Your task to perform on an android device: Search for the most popular books on Goodreads Image 0: 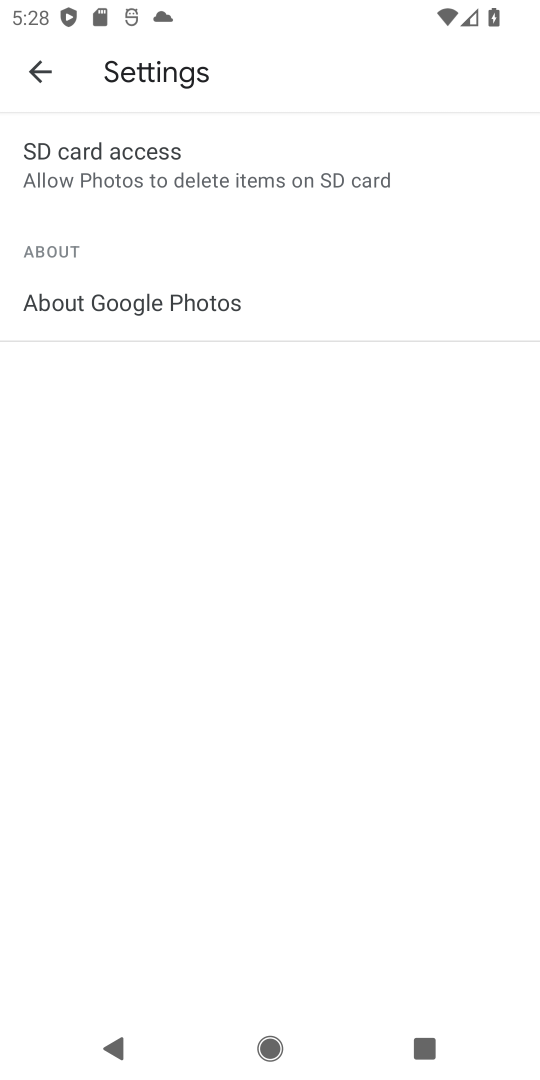
Step 0: press home button
Your task to perform on an android device: Search for the most popular books on Goodreads Image 1: 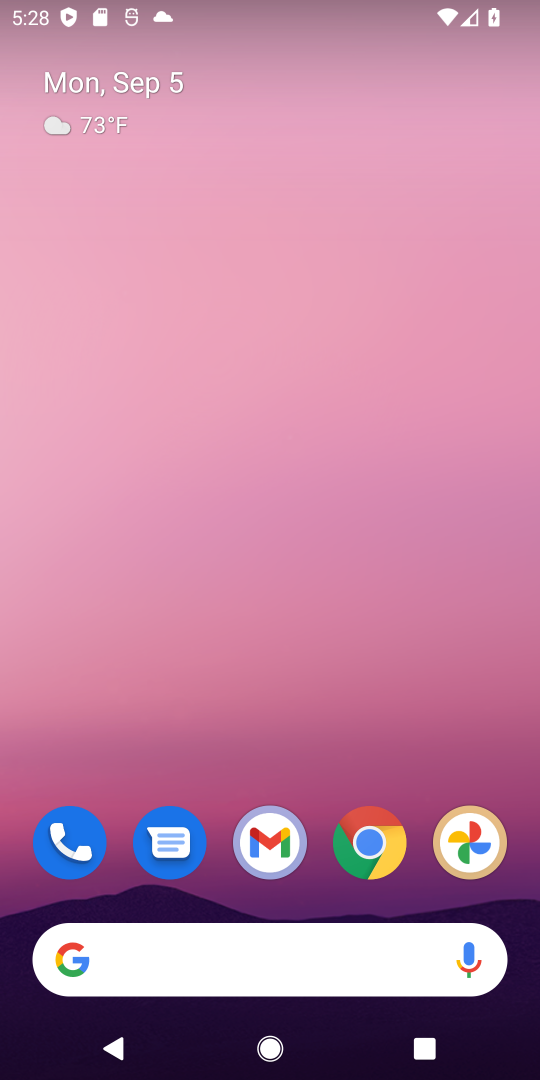
Step 1: click (373, 846)
Your task to perform on an android device: Search for the most popular books on Goodreads Image 2: 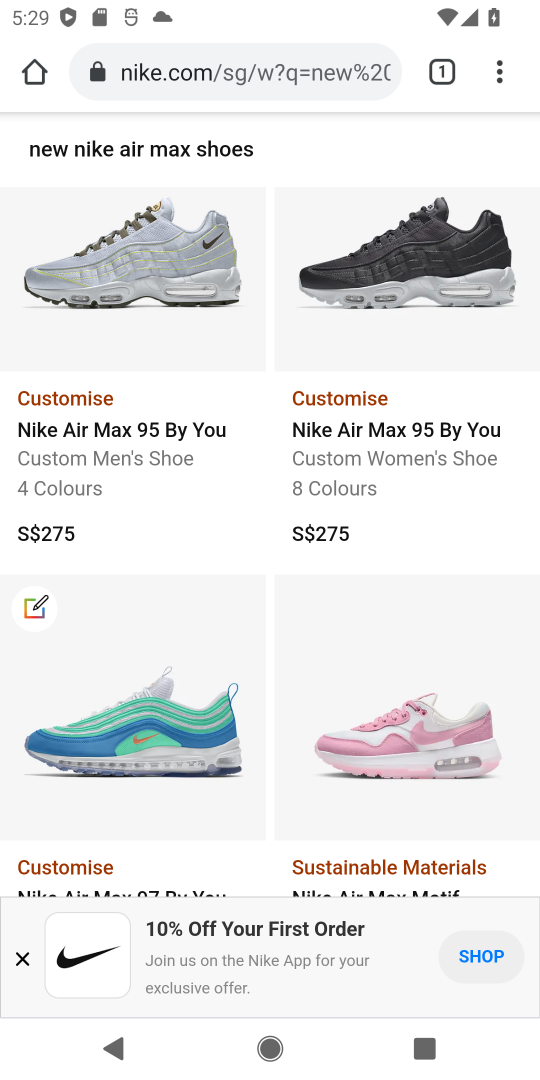
Step 2: click (296, 76)
Your task to perform on an android device: Search for the most popular books on Goodreads Image 3: 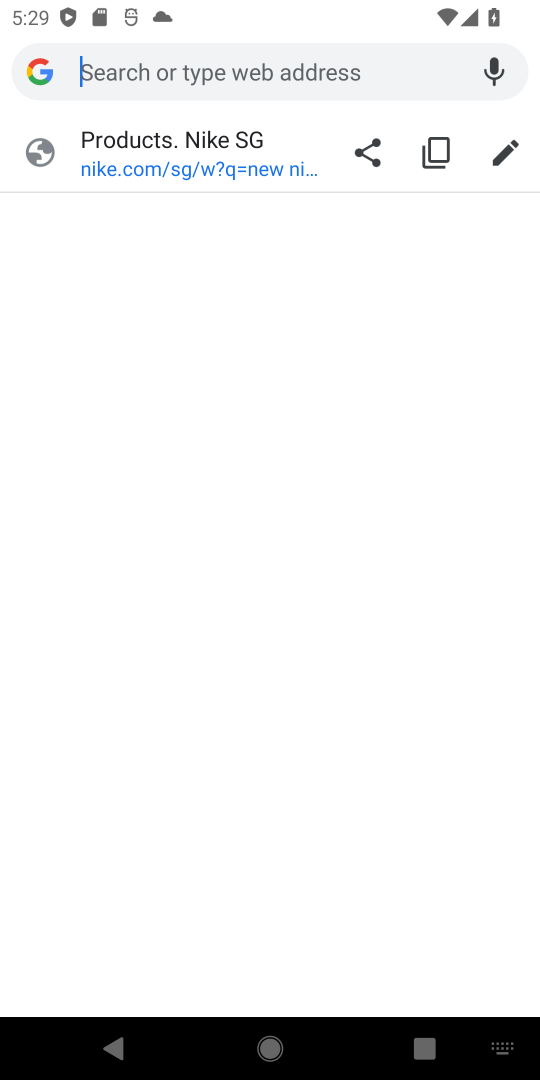
Step 3: type "Goodreads"
Your task to perform on an android device: Search for the most popular books on Goodreads Image 4: 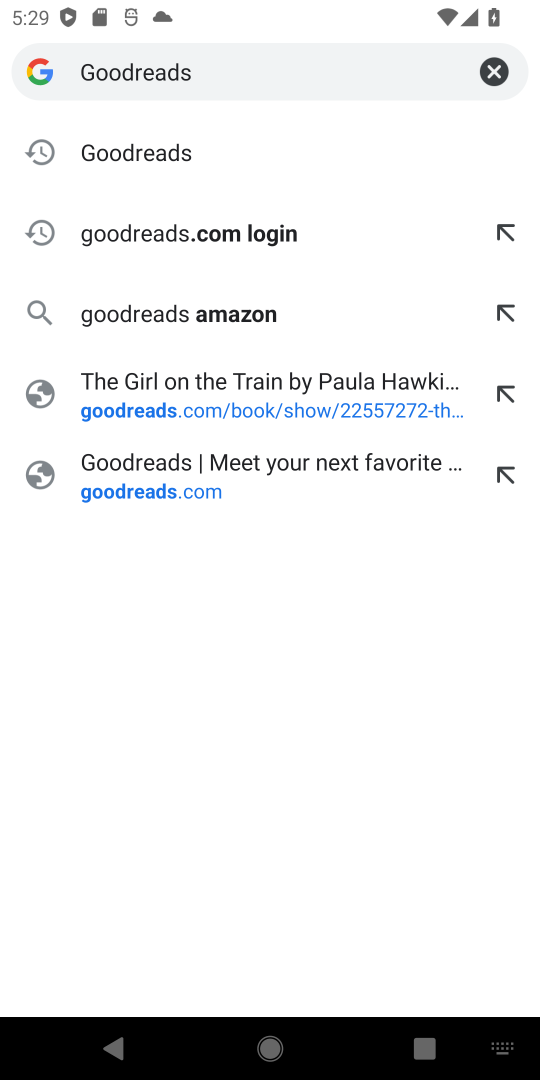
Step 4: click (120, 155)
Your task to perform on an android device: Search for the most popular books on Goodreads Image 5: 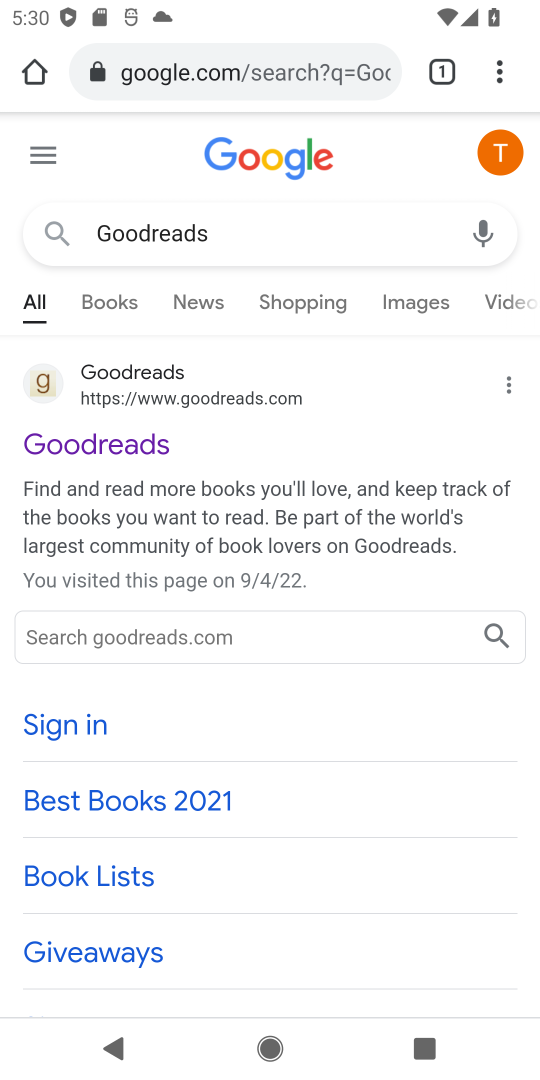
Step 5: click (205, 458)
Your task to perform on an android device: Search for the most popular books on Goodreads Image 6: 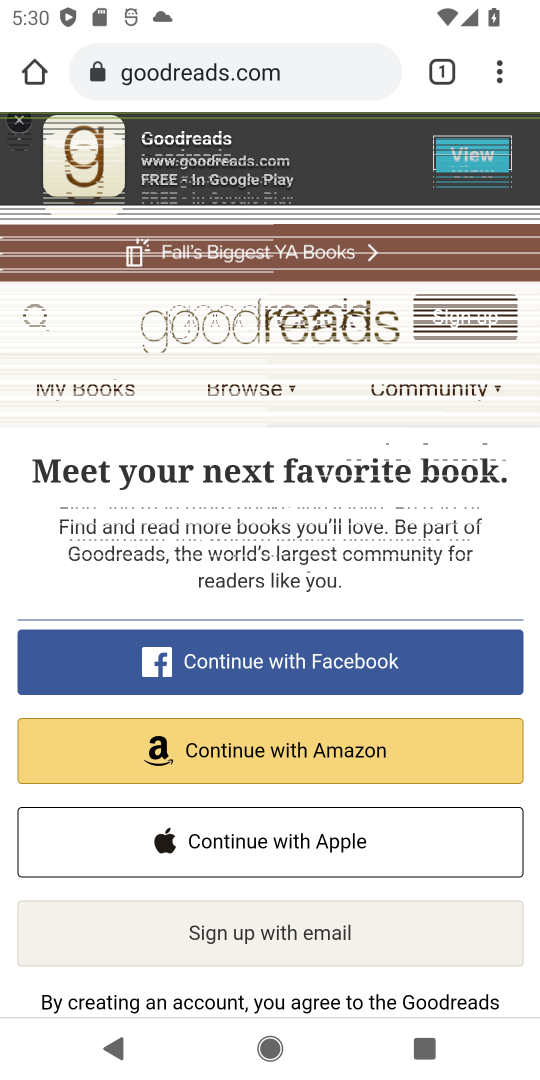
Step 6: click (45, 314)
Your task to perform on an android device: Search for the most popular books on Goodreads Image 7: 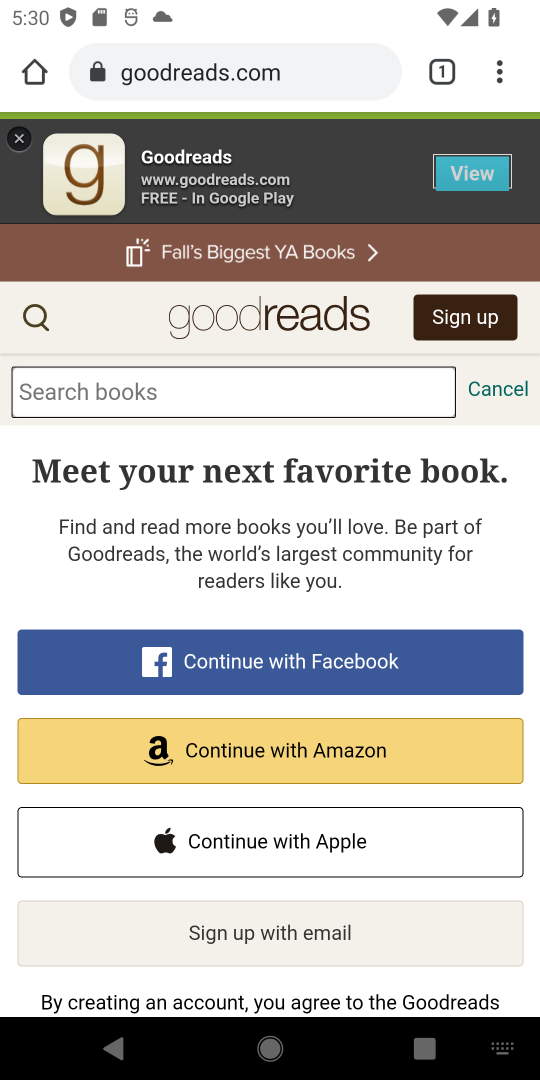
Step 7: type "most popular books"
Your task to perform on an android device: Search for the most popular books on Goodreads Image 8: 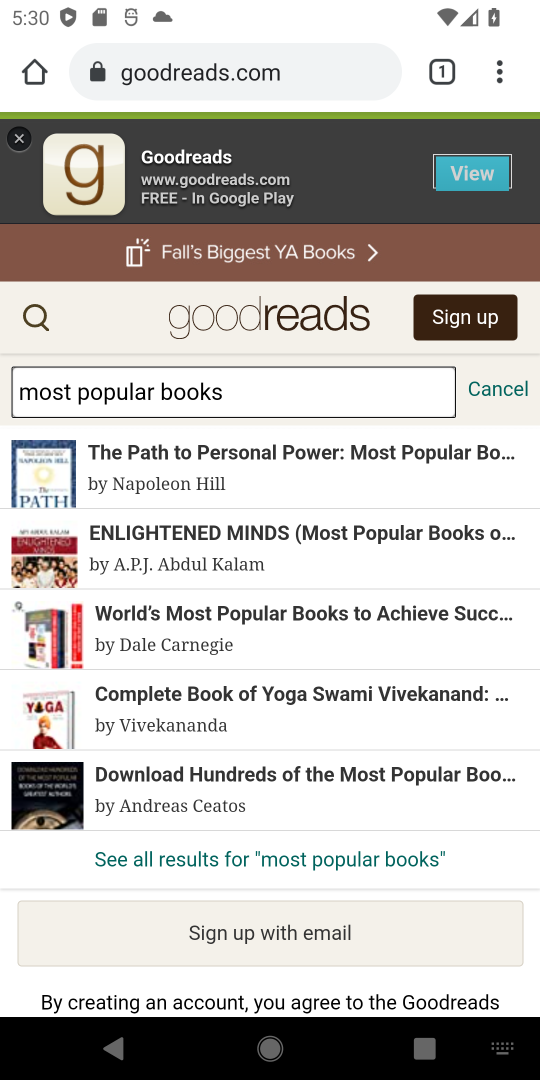
Step 8: click (280, 860)
Your task to perform on an android device: Search for the most popular books on Goodreads Image 9: 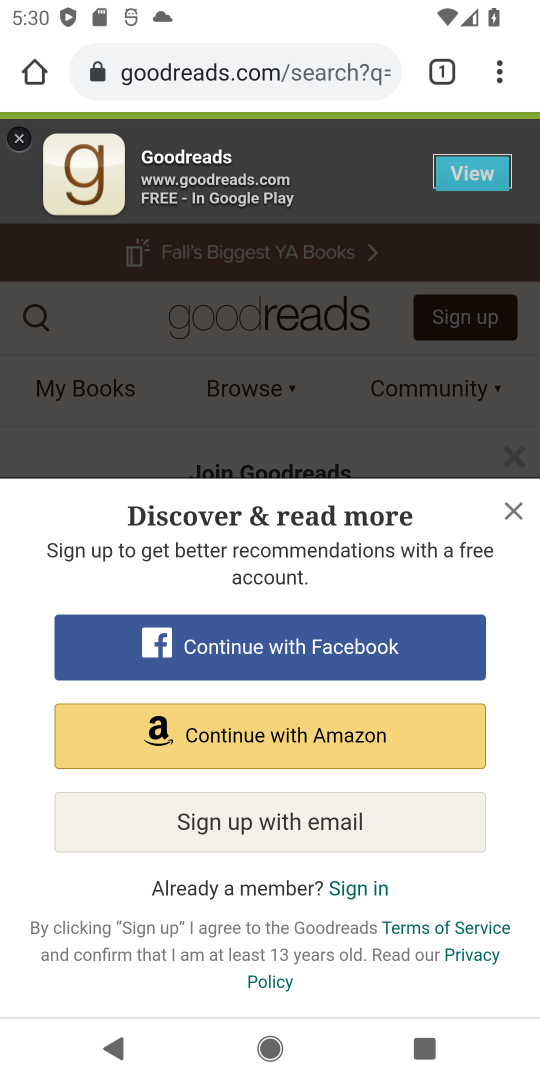
Step 9: click (497, 510)
Your task to perform on an android device: Search for the most popular books on Goodreads Image 10: 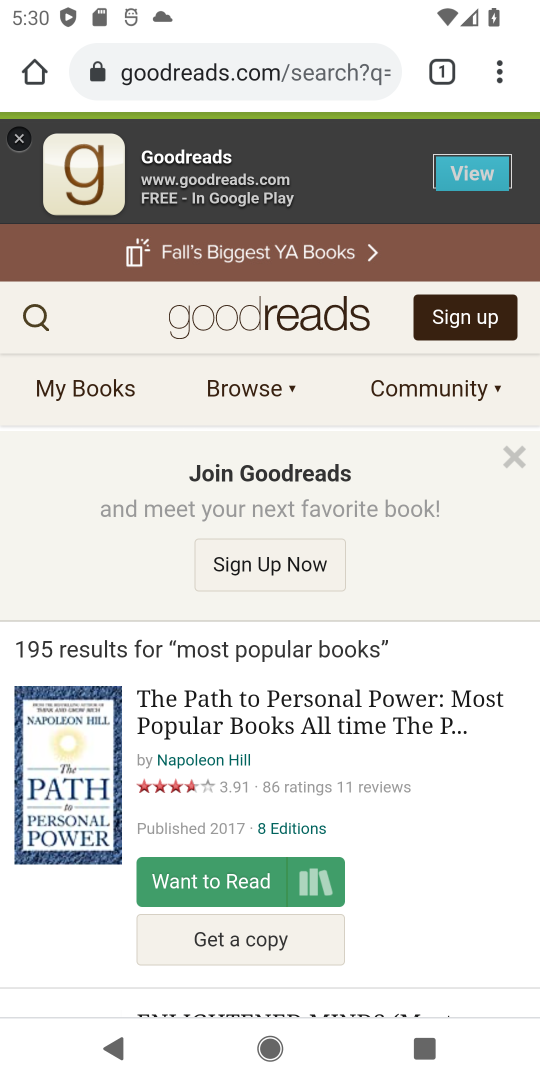
Step 10: task complete